Your task to perform on an android device: Install the Yahoo app Image 0: 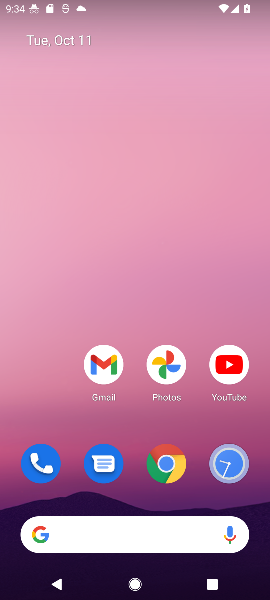
Step 0: drag from (138, 484) to (147, 98)
Your task to perform on an android device: Install the Yahoo app Image 1: 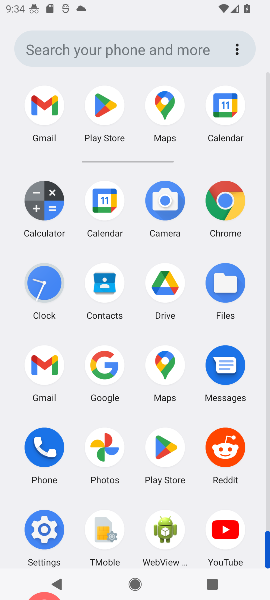
Step 1: click (155, 443)
Your task to perform on an android device: Install the Yahoo app Image 2: 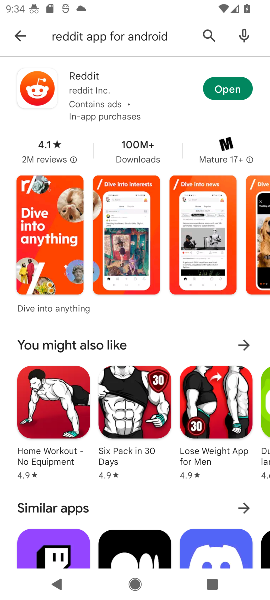
Step 2: click (23, 34)
Your task to perform on an android device: Install the Yahoo app Image 3: 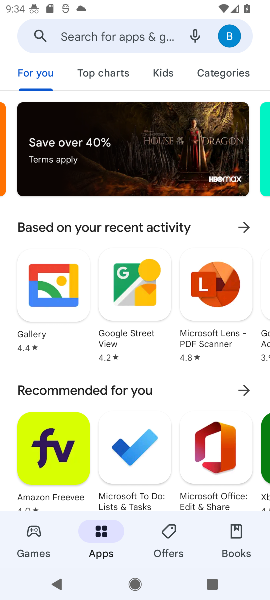
Step 3: click (112, 30)
Your task to perform on an android device: Install the Yahoo app Image 4: 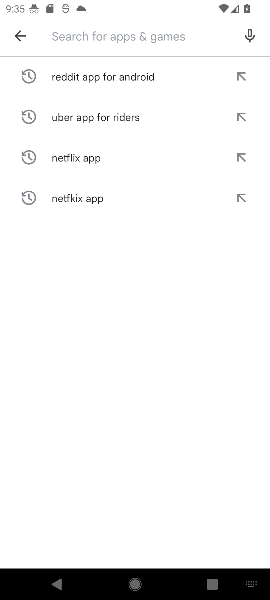
Step 4: click (129, 40)
Your task to perform on an android device: Install the Yahoo app Image 5: 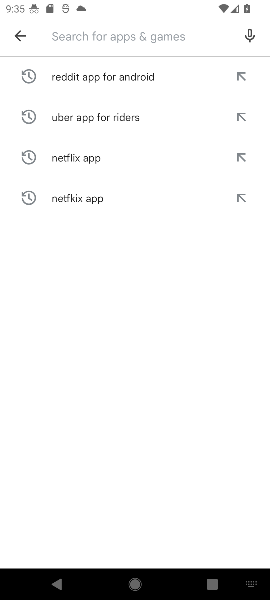
Step 5: type " Yahoo app "
Your task to perform on an android device: Install the Yahoo app Image 6: 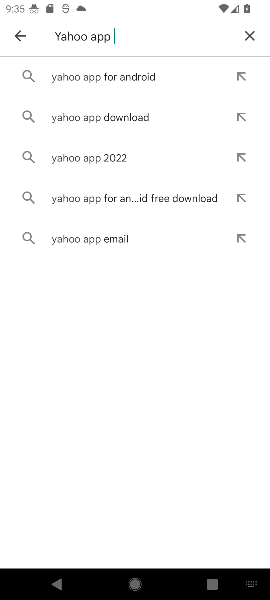
Step 6: click (107, 81)
Your task to perform on an android device: Install the Yahoo app Image 7: 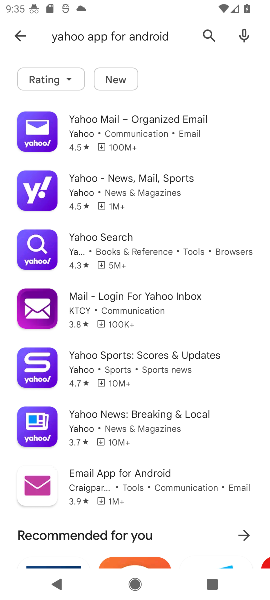
Step 7: drag from (132, 444) to (121, 202)
Your task to perform on an android device: Install the Yahoo app Image 8: 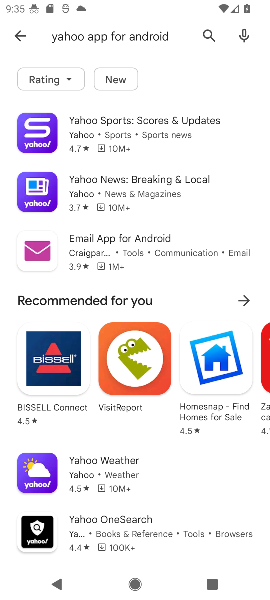
Step 8: drag from (139, 114) to (130, 528)
Your task to perform on an android device: Install the Yahoo app Image 9: 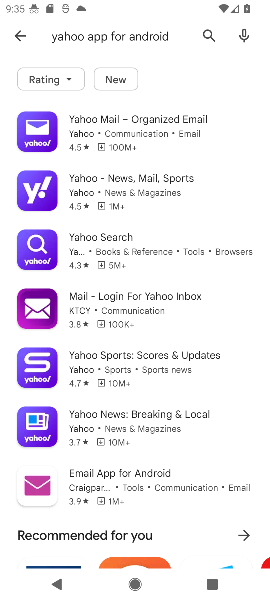
Step 9: click (121, 250)
Your task to perform on an android device: Install the Yahoo app Image 10: 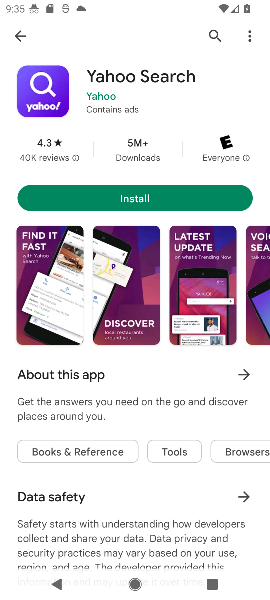
Step 10: click (160, 189)
Your task to perform on an android device: Install the Yahoo app Image 11: 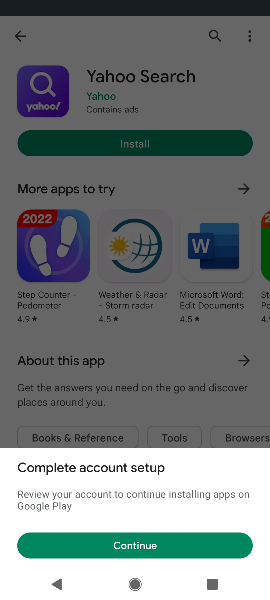
Step 11: click (202, 539)
Your task to perform on an android device: Install the Yahoo app Image 12: 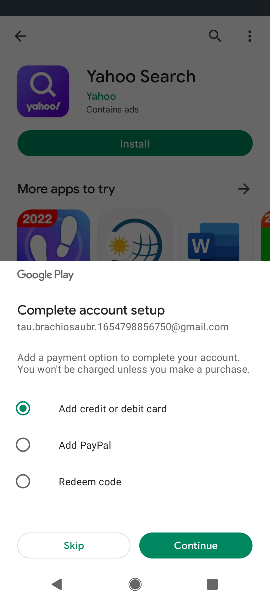
Step 12: task complete